Your task to perform on an android device: clear history in the chrome app Image 0: 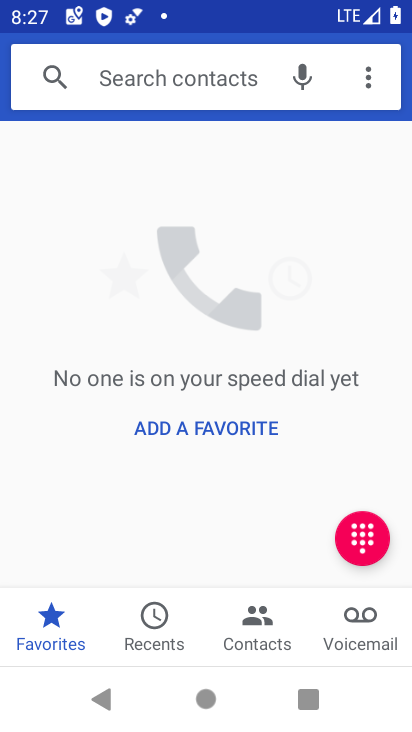
Step 0: press home button
Your task to perform on an android device: clear history in the chrome app Image 1: 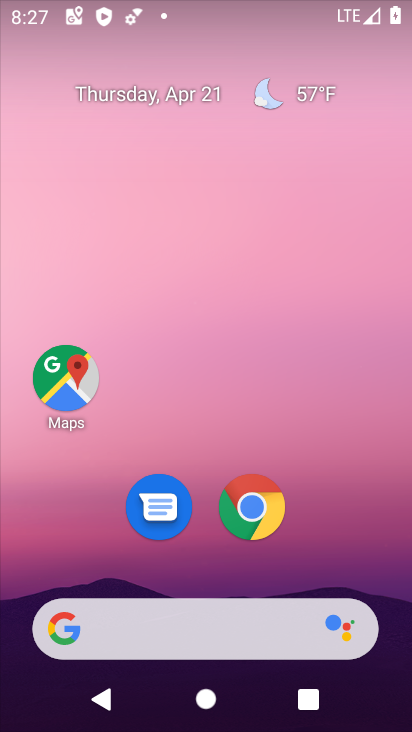
Step 1: click (265, 497)
Your task to perform on an android device: clear history in the chrome app Image 2: 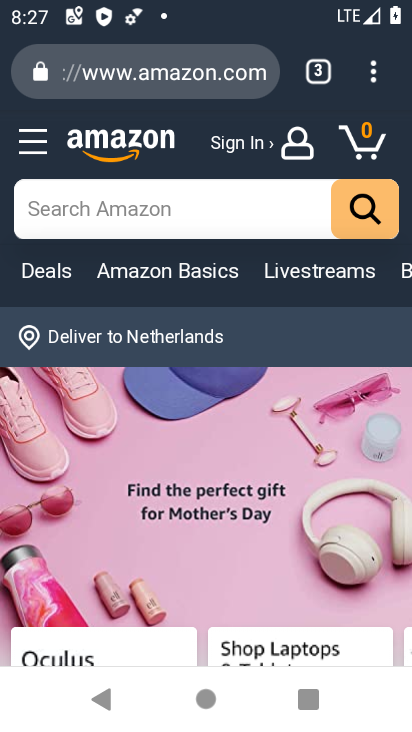
Step 2: drag from (376, 74) to (228, 158)
Your task to perform on an android device: clear history in the chrome app Image 3: 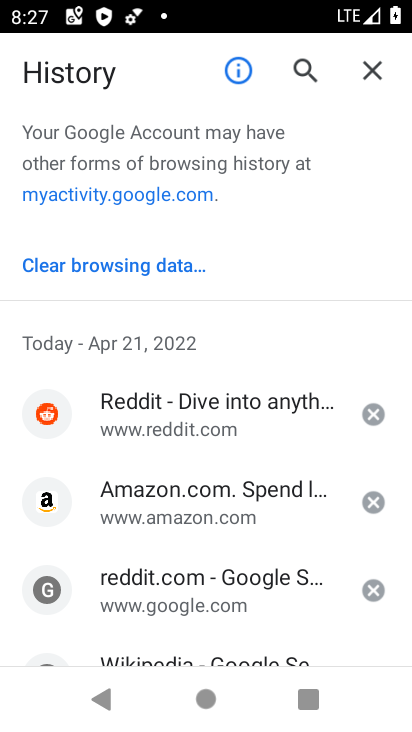
Step 3: click (148, 256)
Your task to perform on an android device: clear history in the chrome app Image 4: 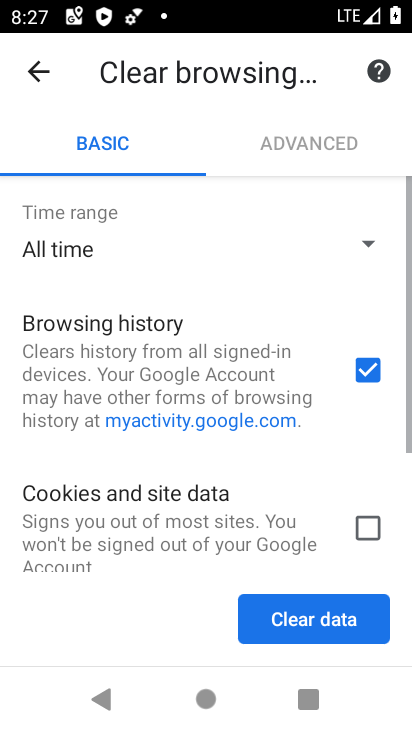
Step 4: click (291, 619)
Your task to perform on an android device: clear history in the chrome app Image 5: 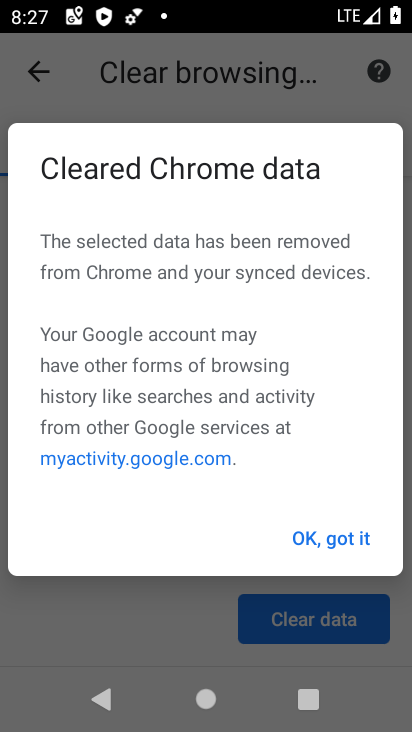
Step 5: click (325, 552)
Your task to perform on an android device: clear history in the chrome app Image 6: 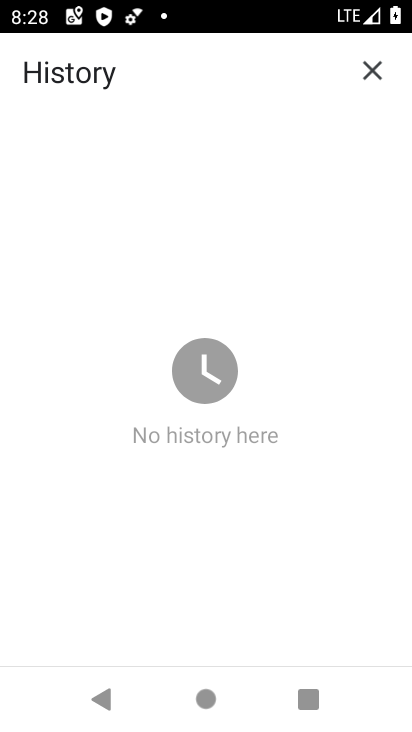
Step 6: task complete